Your task to perform on an android device: clear all cookies in the chrome app Image 0: 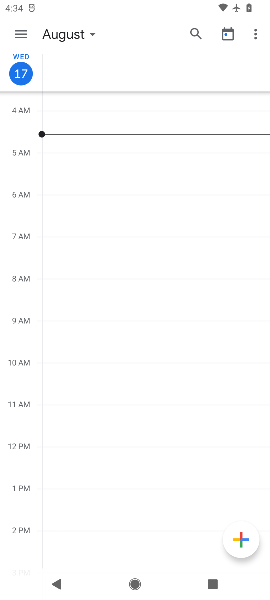
Step 0: press home button
Your task to perform on an android device: clear all cookies in the chrome app Image 1: 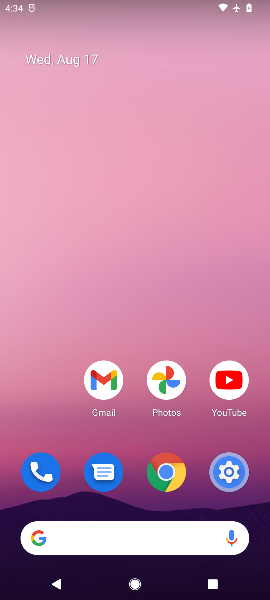
Step 1: click (163, 474)
Your task to perform on an android device: clear all cookies in the chrome app Image 2: 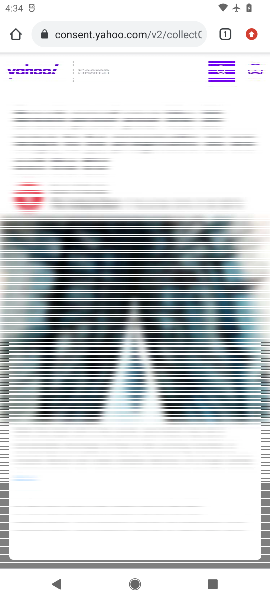
Step 2: click (251, 38)
Your task to perform on an android device: clear all cookies in the chrome app Image 3: 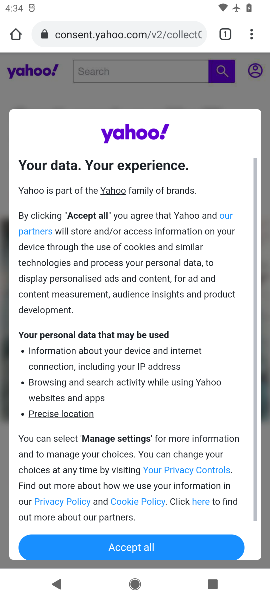
Step 3: click (251, 36)
Your task to perform on an android device: clear all cookies in the chrome app Image 4: 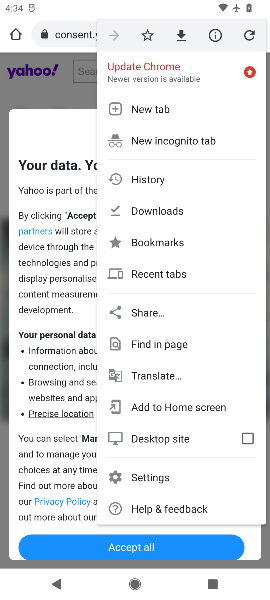
Step 4: click (152, 176)
Your task to perform on an android device: clear all cookies in the chrome app Image 5: 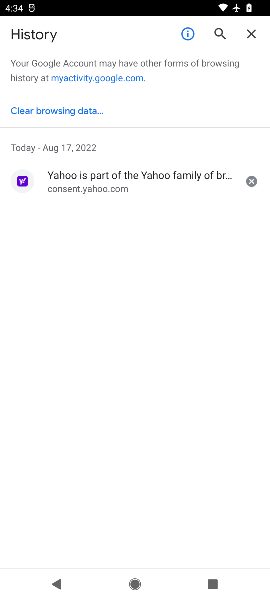
Step 5: click (74, 111)
Your task to perform on an android device: clear all cookies in the chrome app Image 6: 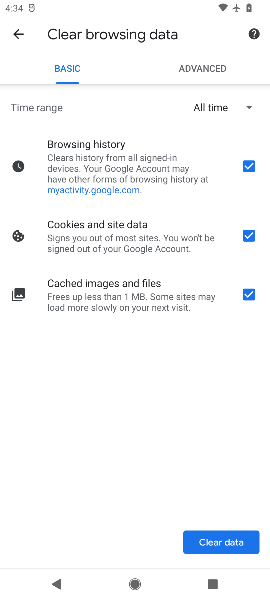
Step 6: click (242, 288)
Your task to perform on an android device: clear all cookies in the chrome app Image 7: 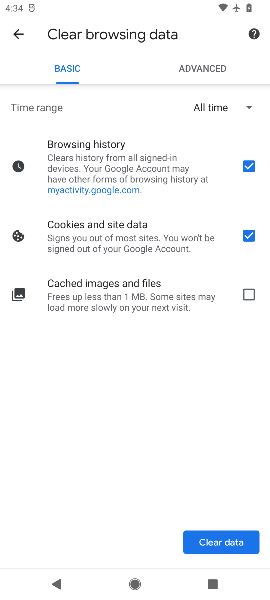
Step 7: click (243, 169)
Your task to perform on an android device: clear all cookies in the chrome app Image 8: 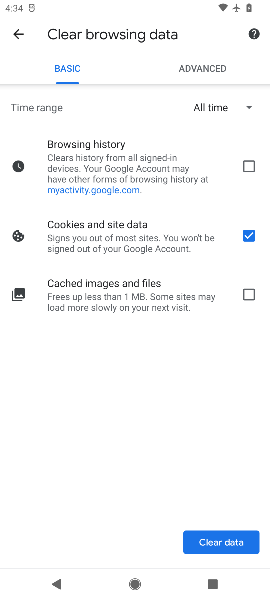
Step 8: click (218, 539)
Your task to perform on an android device: clear all cookies in the chrome app Image 9: 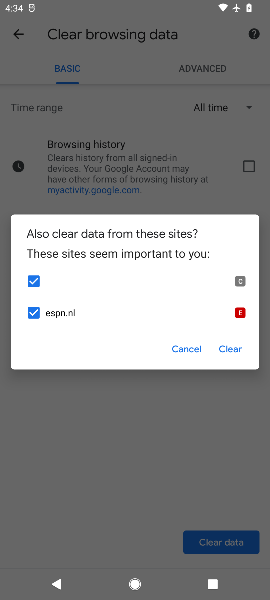
Step 9: click (234, 344)
Your task to perform on an android device: clear all cookies in the chrome app Image 10: 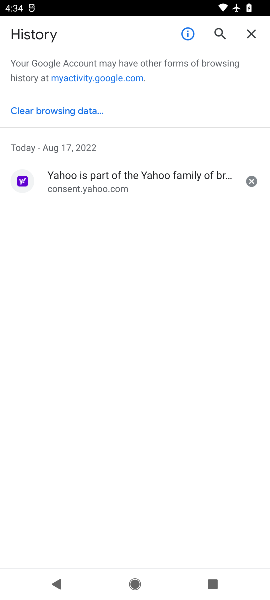
Step 10: task complete